Your task to perform on an android device: turn pop-ups off in chrome Image 0: 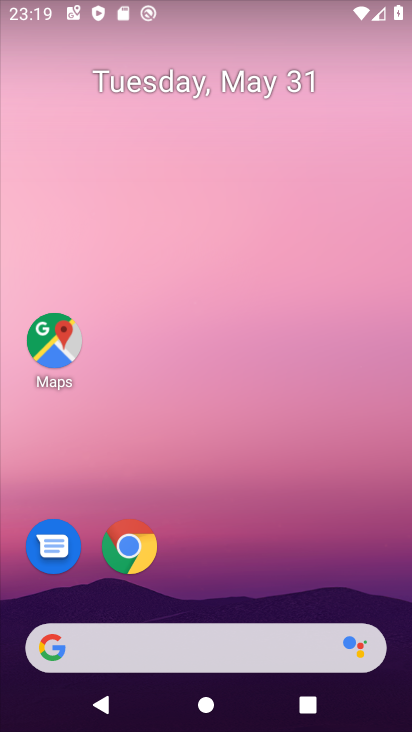
Step 0: click (126, 542)
Your task to perform on an android device: turn pop-ups off in chrome Image 1: 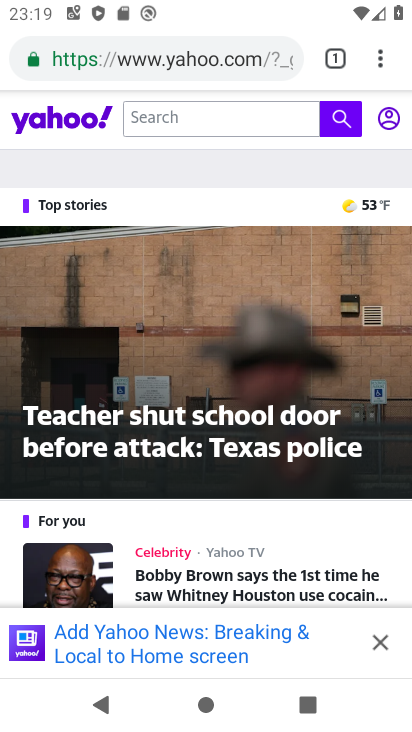
Step 1: click (386, 59)
Your task to perform on an android device: turn pop-ups off in chrome Image 2: 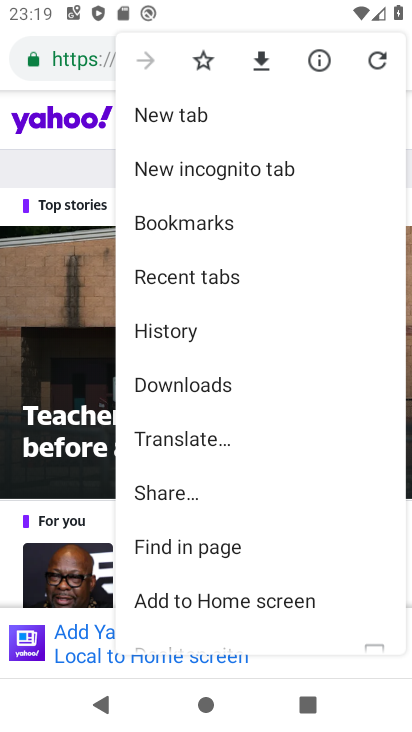
Step 2: drag from (237, 564) to (243, 265)
Your task to perform on an android device: turn pop-ups off in chrome Image 3: 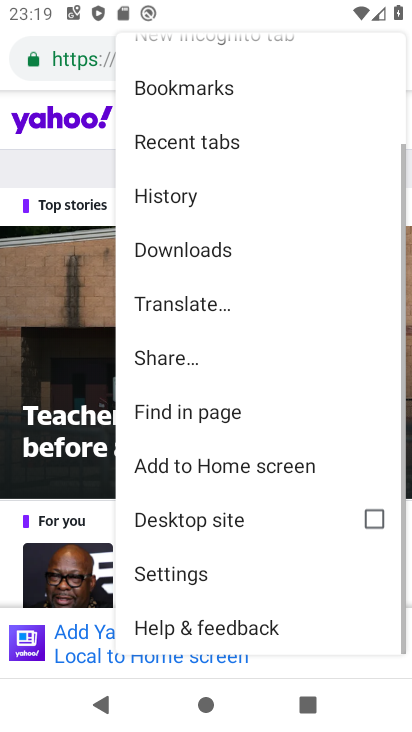
Step 3: click (242, 571)
Your task to perform on an android device: turn pop-ups off in chrome Image 4: 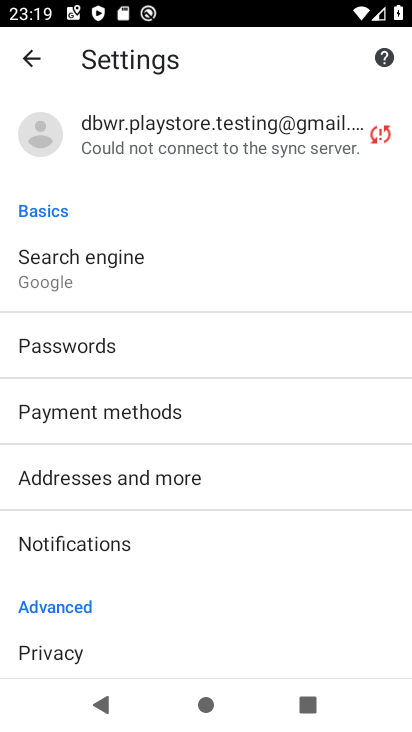
Step 4: drag from (156, 623) to (186, 178)
Your task to perform on an android device: turn pop-ups off in chrome Image 5: 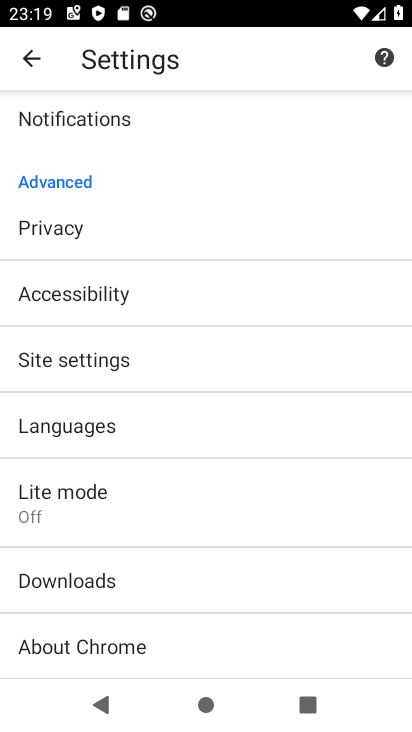
Step 5: click (177, 364)
Your task to perform on an android device: turn pop-ups off in chrome Image 6: 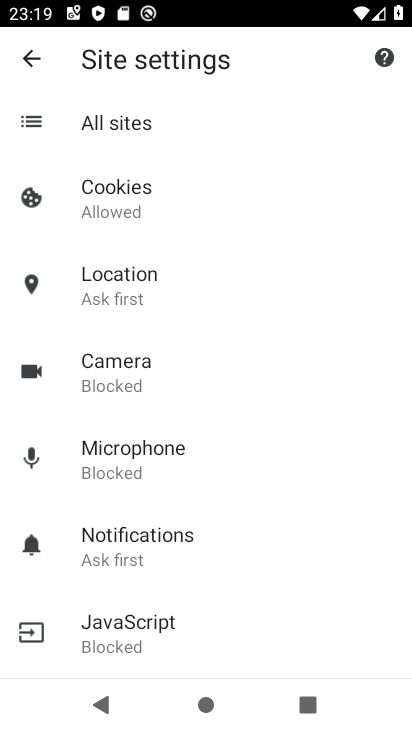
Step 6: drag from (173, 597) to (152, 256)
Your task to perform on an android device: turn pop-ups off in chrome Image 7: 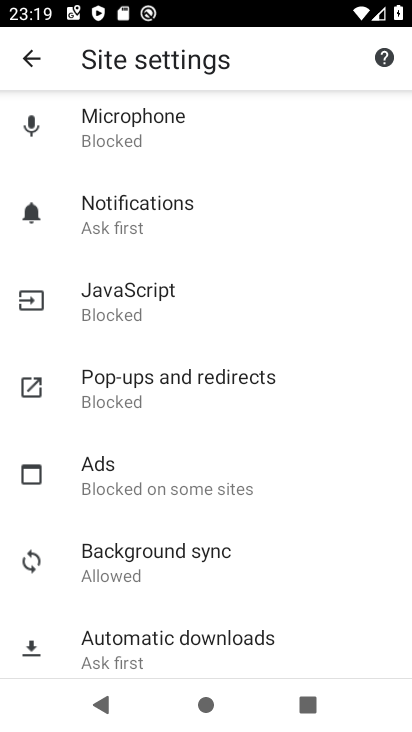
Step 7: click (172, 377)
Your task to perform on an android device: turn pop-ups off in chrome Image 8: 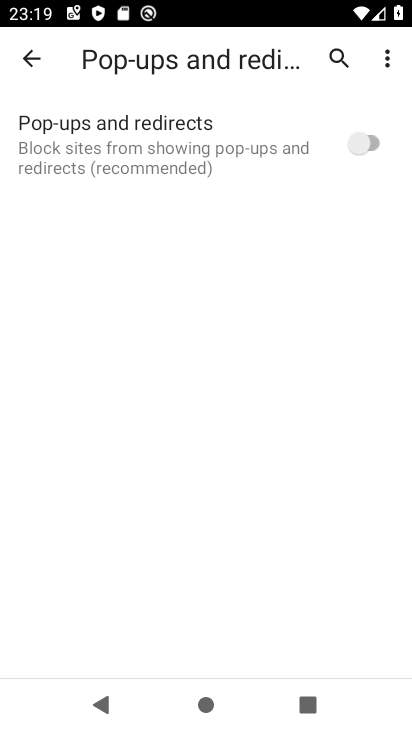
Step 8: task complete